Your task to perform on an android device: toggle show notifications on the lock screen Image 0: 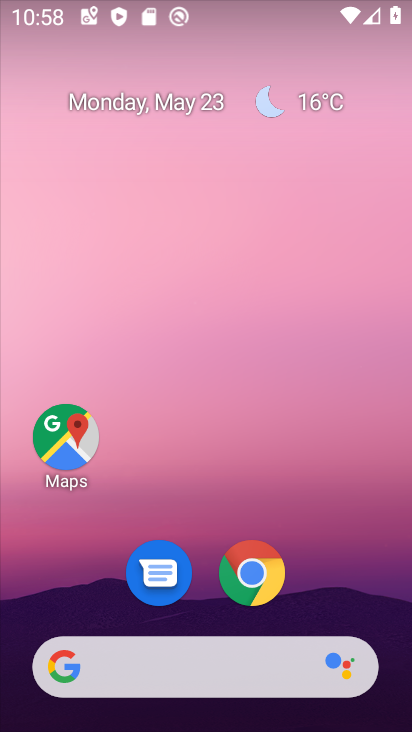
Step 0: drag from (307, 506) to (245, 17)
Your task to perform on an android device: toggle show notifications on the lock screen Image 1: 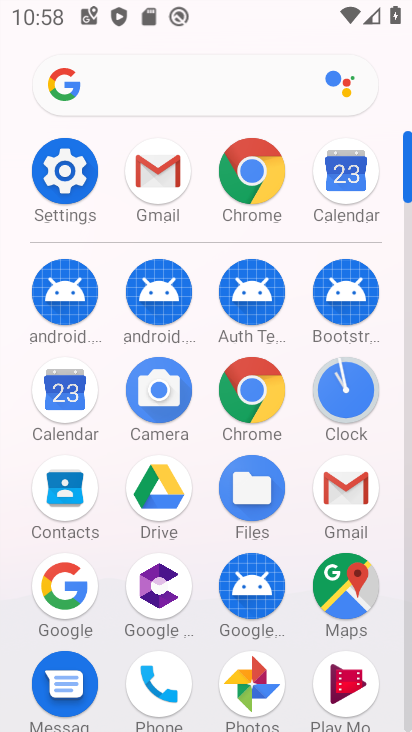
Step 1: drag from (27, 496) to (27, 166)
Your task to perform on an android device: toggle show notifications on the lock screen Image 2: 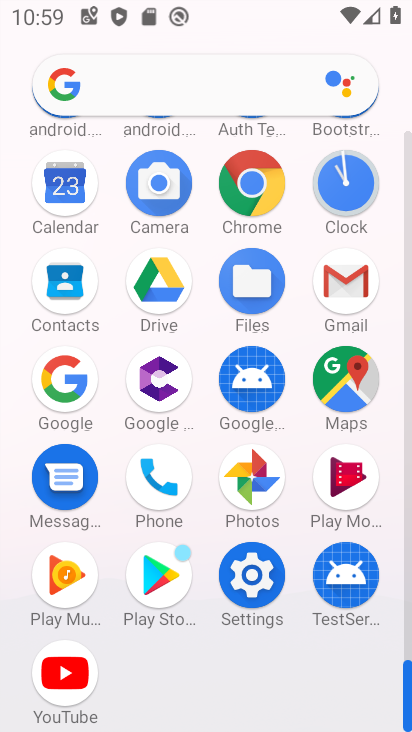
Step 2: click (252, 575)
Your task to perform on an android device: toggle show notifications on the lock screen Image 3: 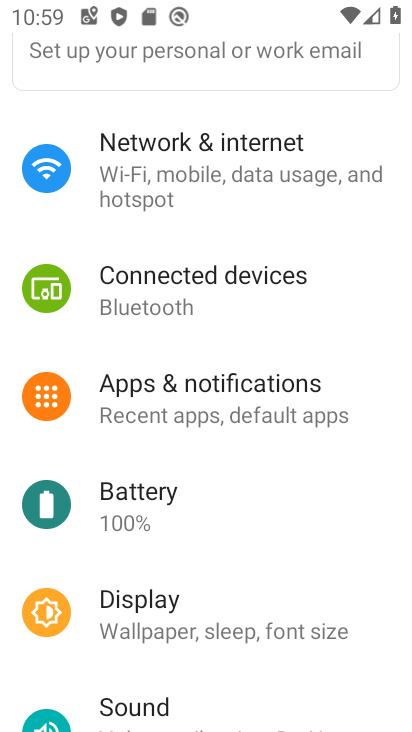
Step 3: click (205, 394)
Your task to perform on an android device: toggle show notifications on the lock screen Image 4: 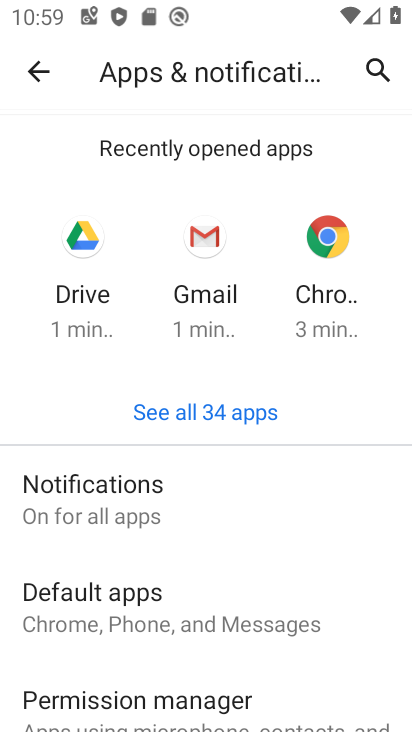
Step 4: click (168, 492)
Your task to perform on an android device: toggle show notifications on the lock screen Image 5: 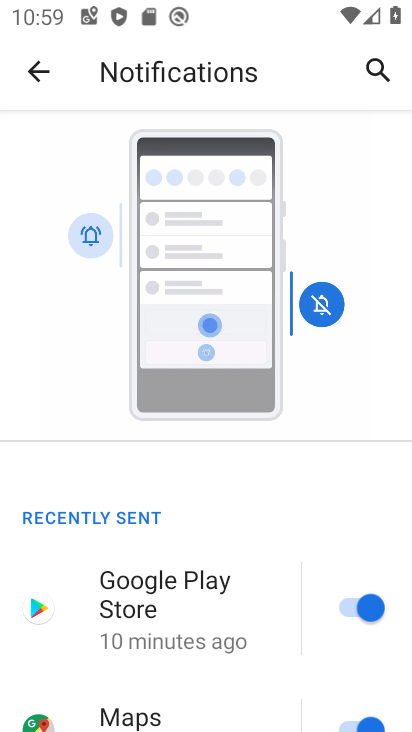
Step 5: drag from (219, 628) to (190, 118)
Your task to perform on an android device: toggle show notifications on the lock screen Image 6: 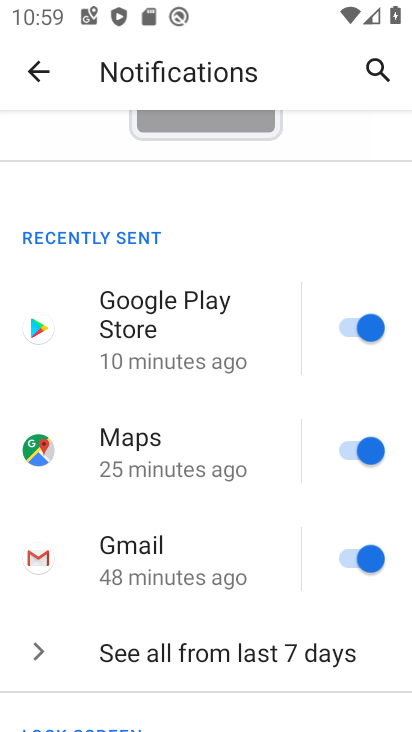
Step 6: drag from (234, 534) to (204, 133)
Your task to perform on an android device: toggle show notifications on the lock screen Image 7: 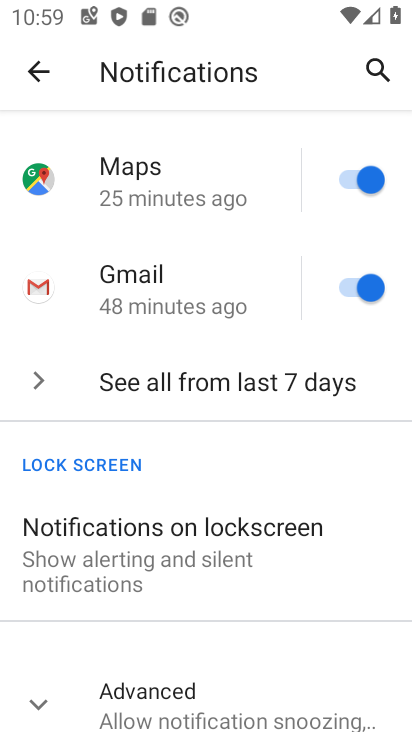
Step 7: click (158, 572)
Your task to perform on an android device: toggle show notifications on the lock screen Image 8: 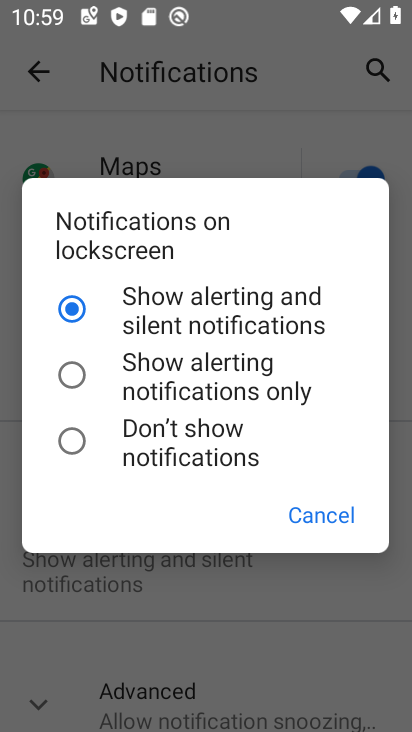
Step 8: click (197, 357)
Your task to perform on an android device: toggle show notifications on the lock screen Image 9: 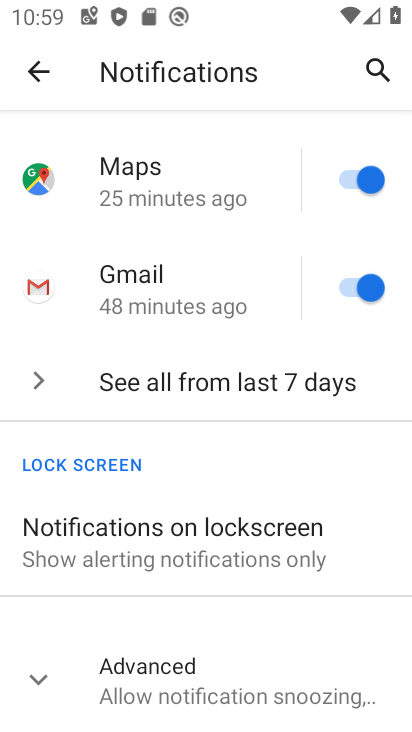
Step 9: task complete